Your task to perform on an android device: delete location history Image 0: 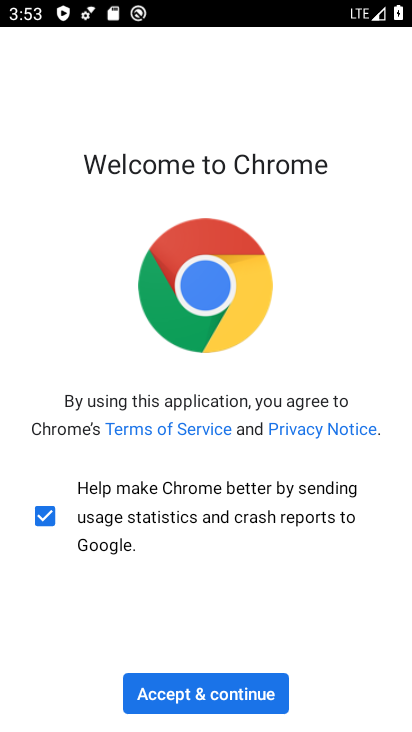
Step 0: press home button
Your task to perform on an android device: delete location history Image 1: 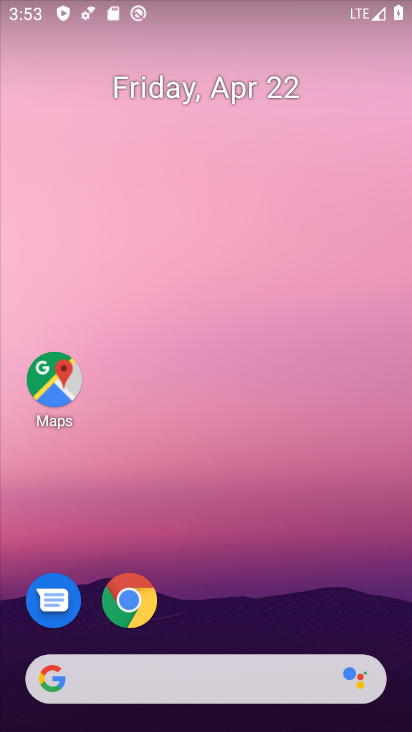
Step 1: click (58, 371)
Your task to perform on an android device: delete location history Image 2: 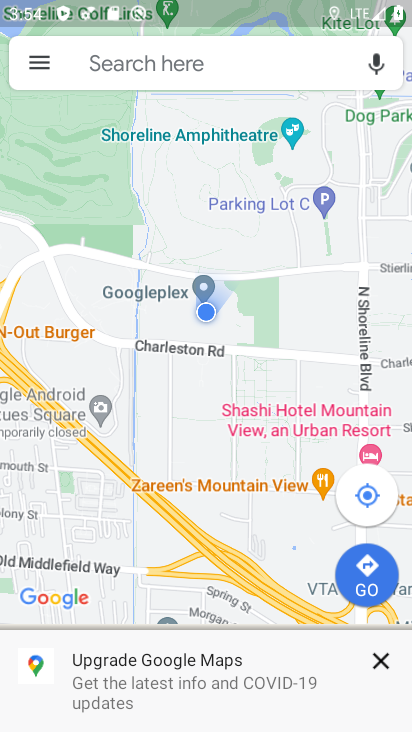
Step 2: click (41, 59)
Your task to perform on an android device: delete location history Image 3: 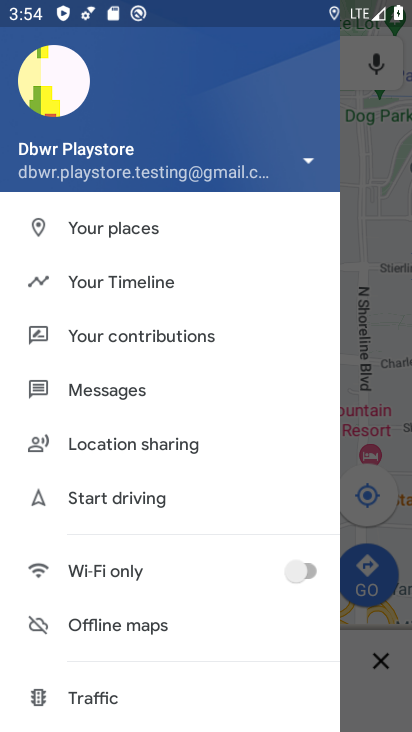
Step 3: click (123, 289)
Your task to perform on an android device: delete location history Image 4: 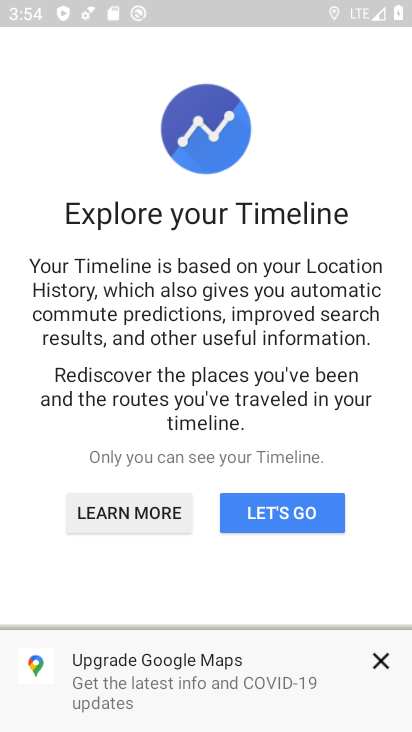
Step 4: click (308, 501)
Your task to perform on an android device: delete location history Image 5: 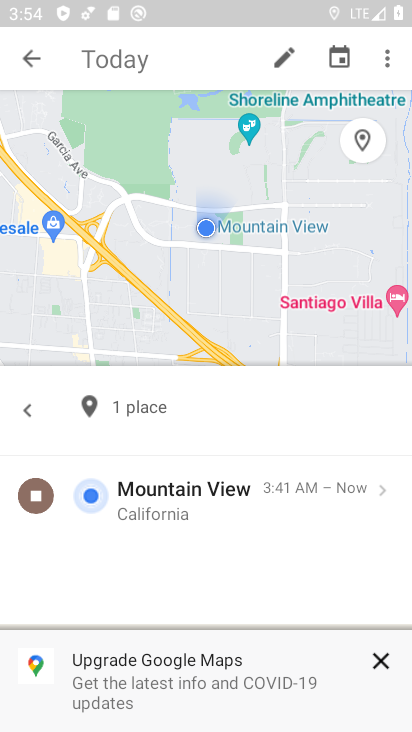
Step 5: click (388, 61)
Your task to perform on an android device: delete location history Image 6: 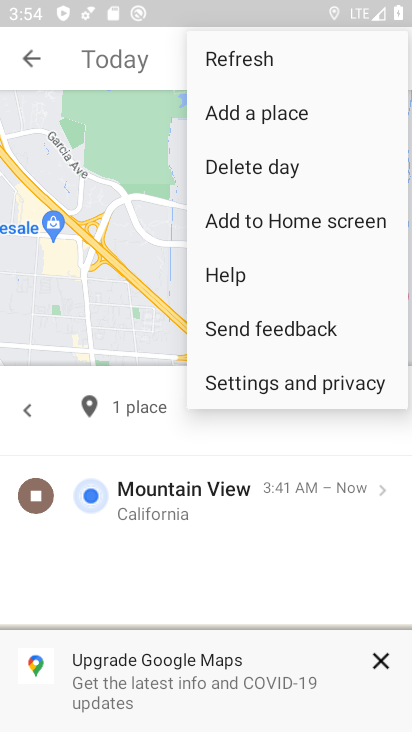
Step 6: click (284, 387)
Your task to perform on an android device: delete location history Image 7: 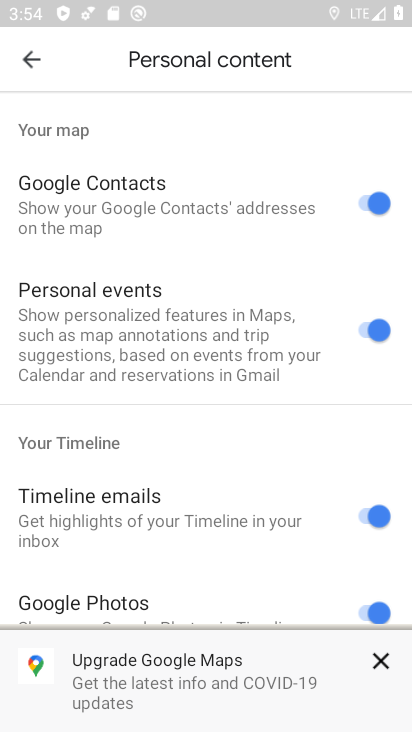
Step 7: drag from (291, 424) to (262, 44)
Your task to perform on an android device: delete location history Image 8: 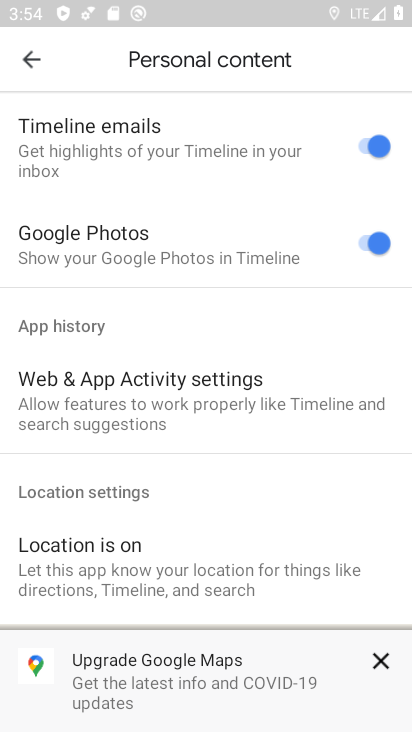
Step 8: drag from (281, 442) to (266, 232)
Your task to perform on an android device: delete location history Image 9: 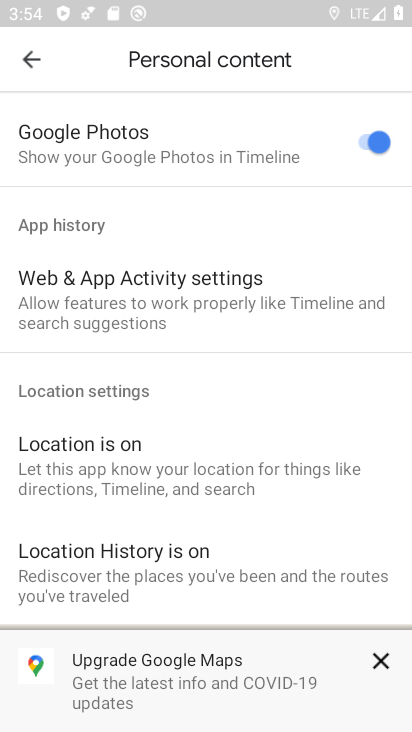
Step 9: drag from (274, 388) to (272, 265)
Your task to perform on an android device: delete location history Image 10: 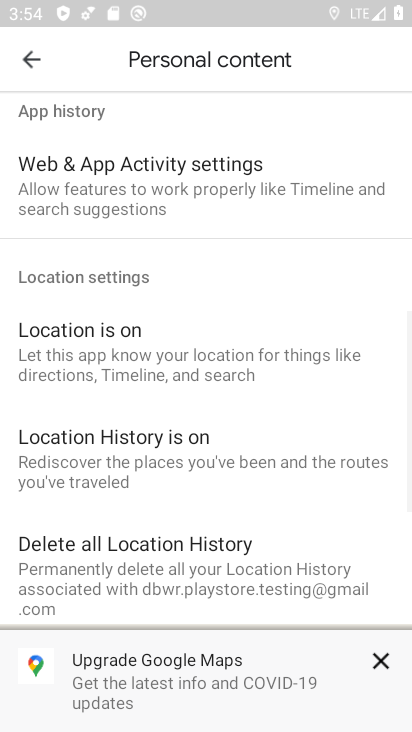
Step 10: click (272, 267)
Your task to perform on an android device: delete location history Image 11: 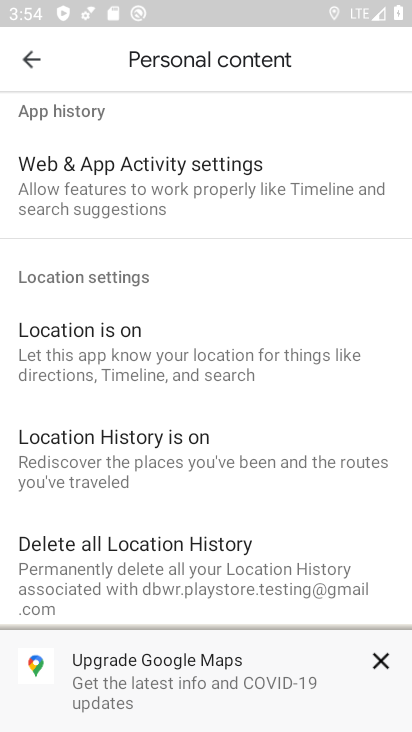
Step 11: click (221, 535)
Your task to perform on an android device: delete location history Image 12: 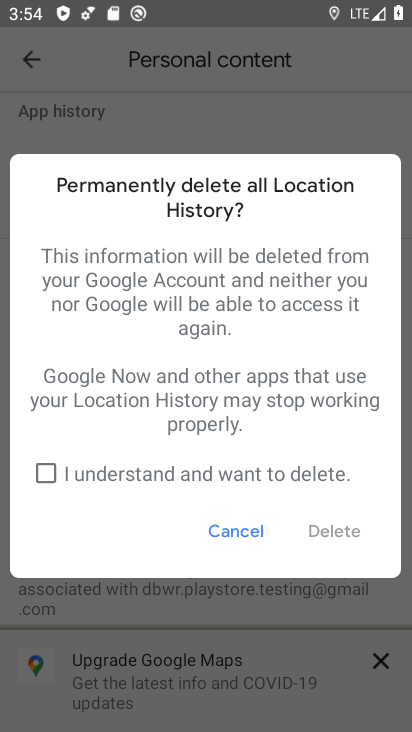
Step 12: click (219, 487)
Your task to perform on an android device: delete location history Image 13: 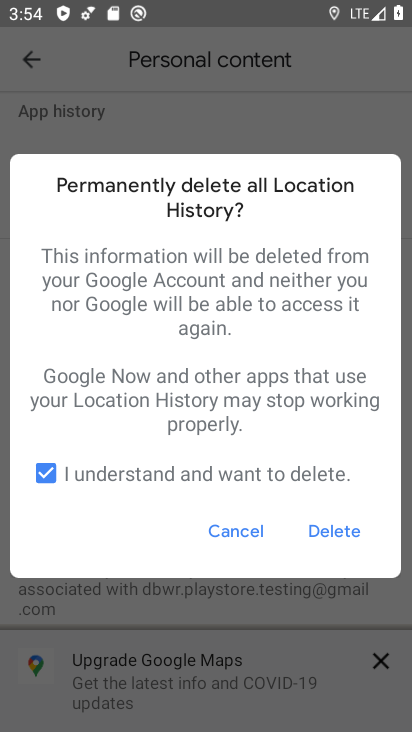
Step 13: click (327, 529)
Your task to perform on an android device: delete location history Image 14: 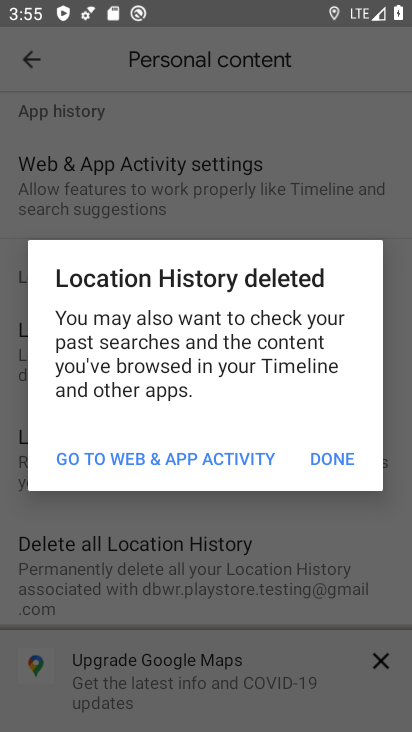
Step 14: click (342, 456)
Your task to perform on an android device: delete location history Image 15: 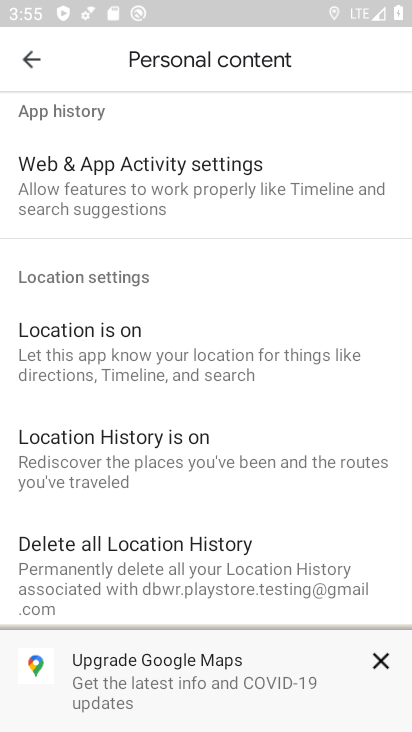
Step 15: task complete